Your task to perform on an android device: Clear the cart on walmart.com. Search for panasonic triple a on walmart.com, select the first entry, add it to the cart, then select checkout. Image 0: 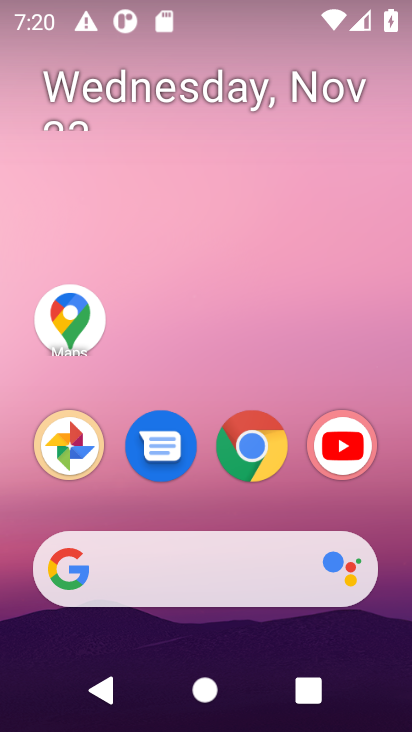
Step 0: click (156, 557)
Your task to perform on an android device: Clear the cart on walmart.com. Search for panasonic triple a on walmart.com, select the first entry, add it to the cart, then select checkout. Image 1: 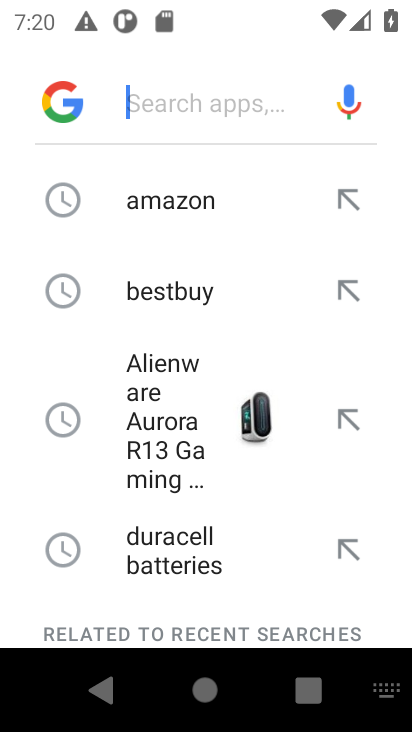
Step 1: type "walmart.com"
Your task to perform on an android device: Clear the cart on walmart.com. Search for panasonic triple a on walmart.com, select the first entry, add it to the cart, then select checkout. Image 2: 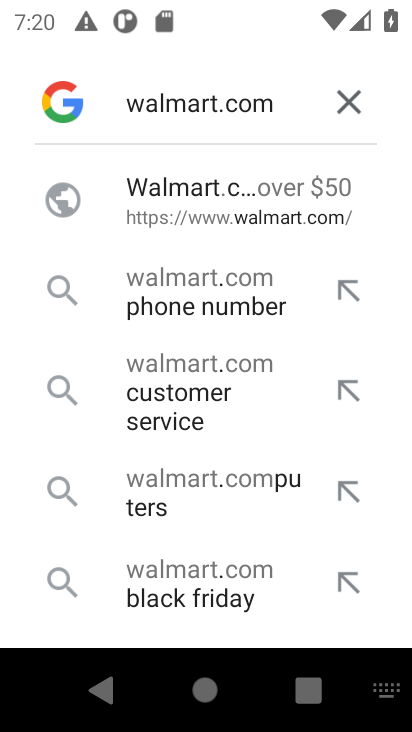
Step 2: click (242, 176)
Your task to perform on an android device: Clear the cart on walmart.com. Search for panasonic triple a on walmart.com, select the first entry, add it to the cart, then select checkout. Image 3: 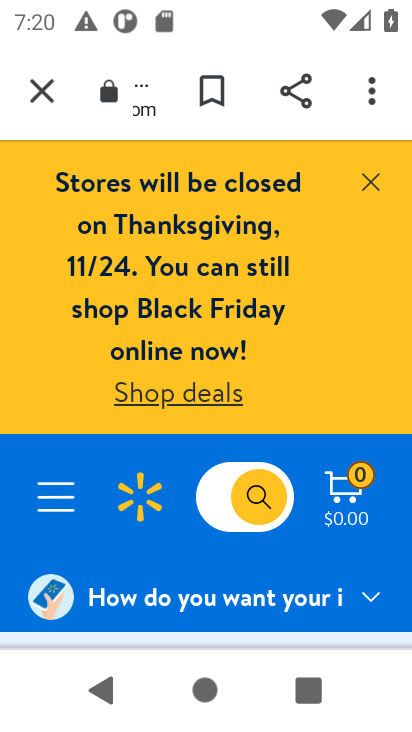
Step 3: click (370, 195)
Your task to perform on an android device: Clear the cart on walmart.com. Search for panasonic triple a on walmart.com, select the first entry, add it to the cart, then select checkout. Image 4: 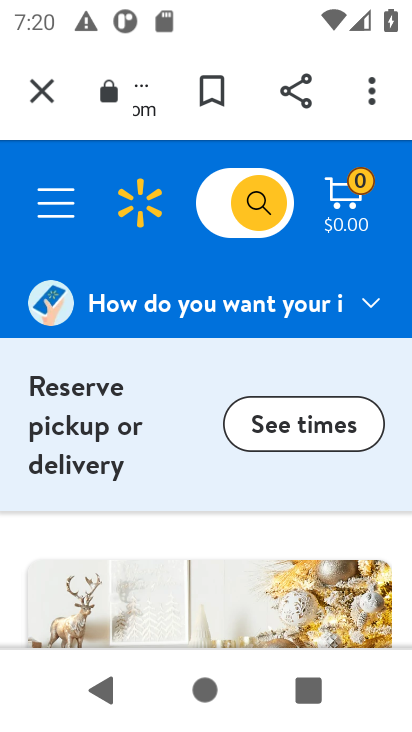
Step 4: click (215, 217)
Your task to perform on an android device: Clear the cart on walmart.com. Search for panasonic triple a on walmart.com, select the first entry, add it to the cart, then select checkout. Image 5: 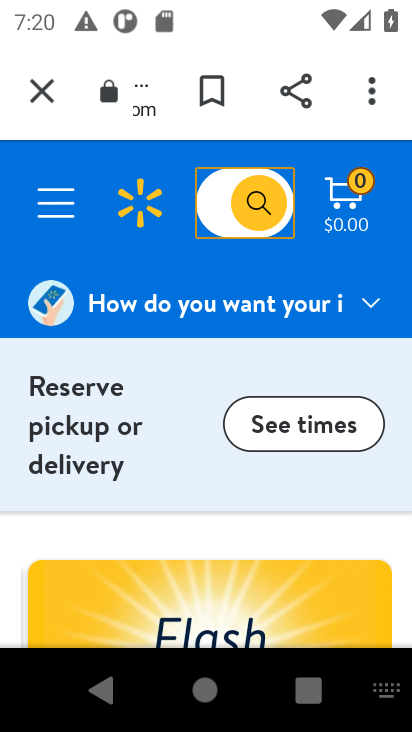
Step 5: click (208, 204)
Your task to perform on an android device: Clear the cart on walmart.com. Search for panasonic triple a on walmart.com, select the first entry, add it to the cart, then select checkout. Image 6: 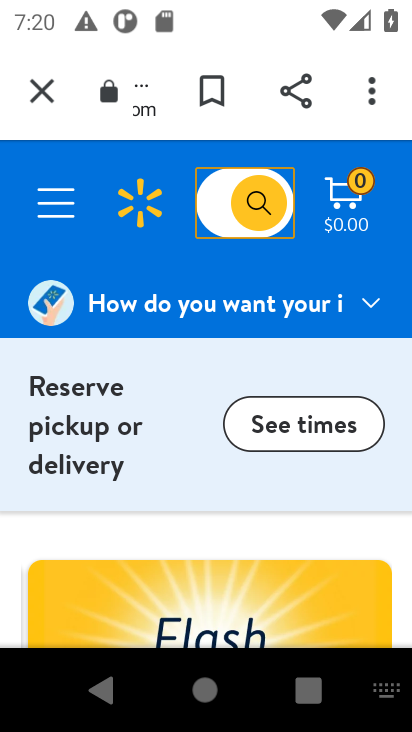
Step 6: task complete